Your task to perform on an android device: find which apps use the phone's location Image 0: 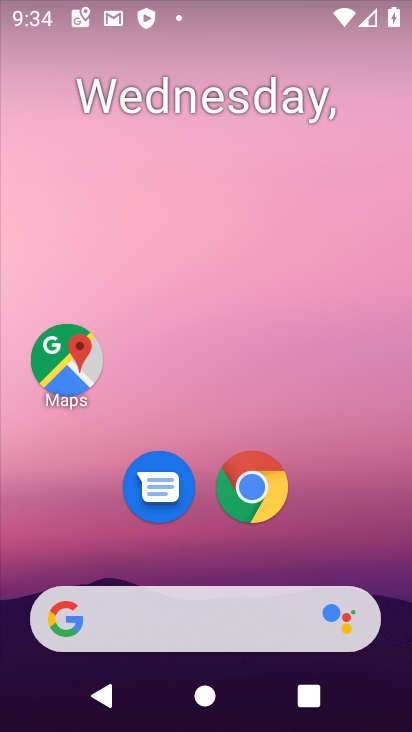
Step 0: drag from (88, 533) to (205, 82)
Your task to perform on an android device: find which apps use the phone's location Image 1: 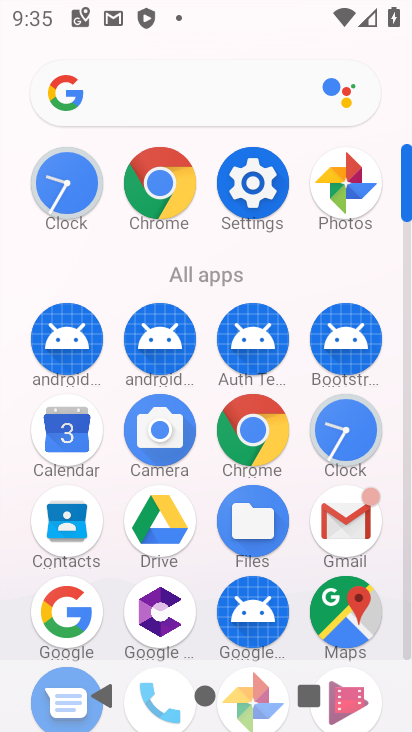
Step 1: click (257, 200)
Your task to perform on an android device: find which apps use the phone's location Image 2: 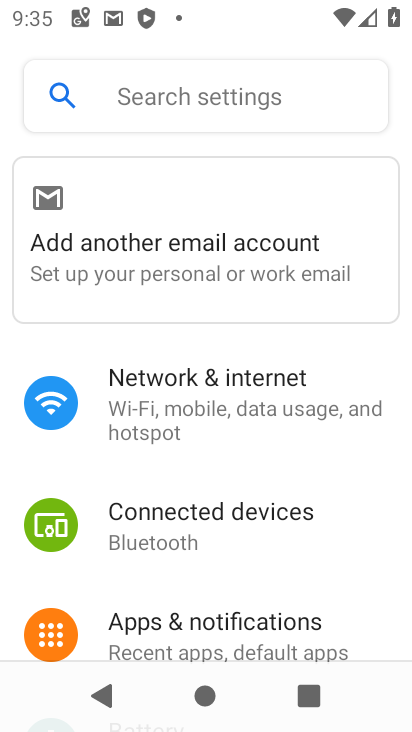
Step 2: drag from (260, 619) to (270, 92)
Your task to perform on an android device: find which apps use the phone's location Image 3: 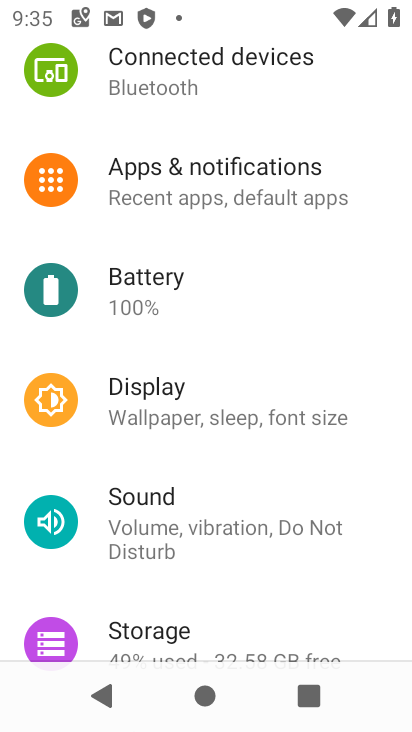
Step 3: drag from (193, 594) to (227, 82)
Your task to perform on an android device: find which apps use the phone's location Image 4: 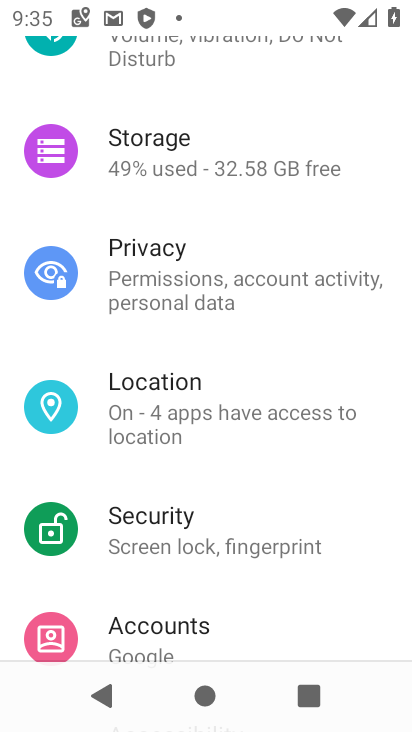
Step 4: click (164, 390)
Your task to perform on an android device: find which apps use the phone's location Image 5: 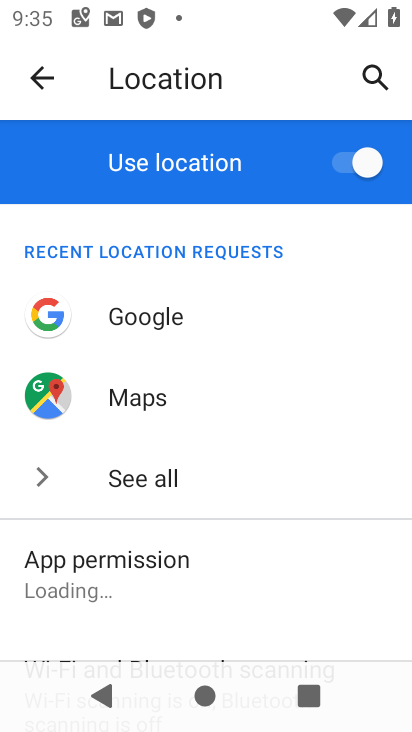
Step 5: drag from (178, 611) to (210, 174)
Your task to perform on an android device: find which apps use the phone's location Image 6: 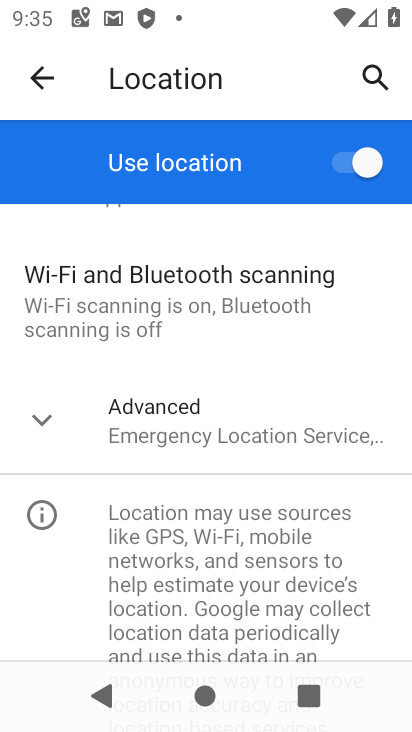
Step 6: click (241, 419)
Your task to perform on an android device: find which apps use the phone's location Image 7: 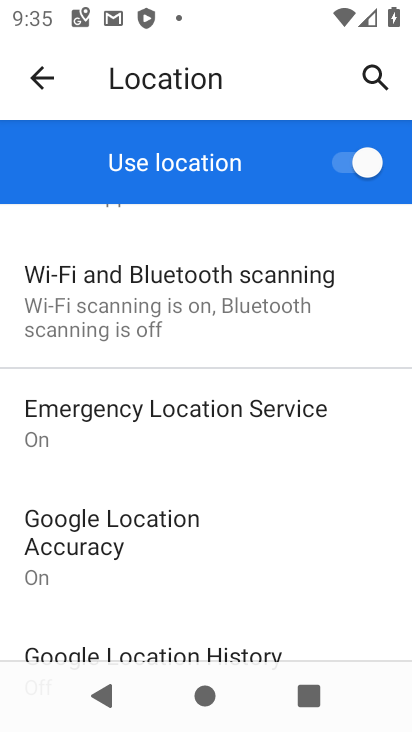
Step 7: drag from (230, 300) to (201, 726)
Your task to perform on an android device: find which apps use the phone's location Image 8: 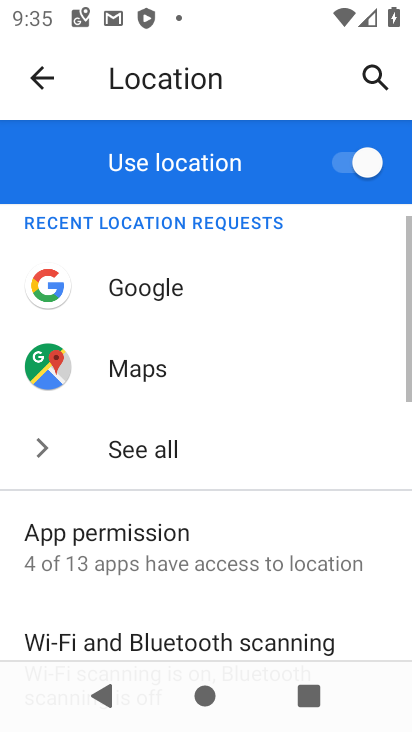
Step 8: click (92, 560)
Your task to perform on an android device: find which apps use the phone's location Image 9: 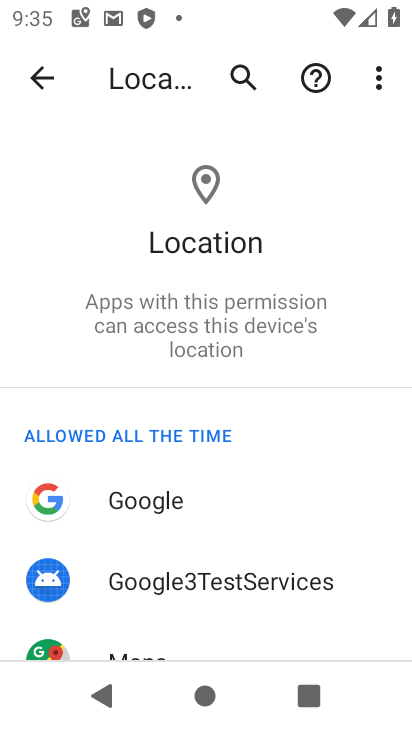
Step 9: task complete